Your task to perform on an android device: toggle airplane mode Image 0: 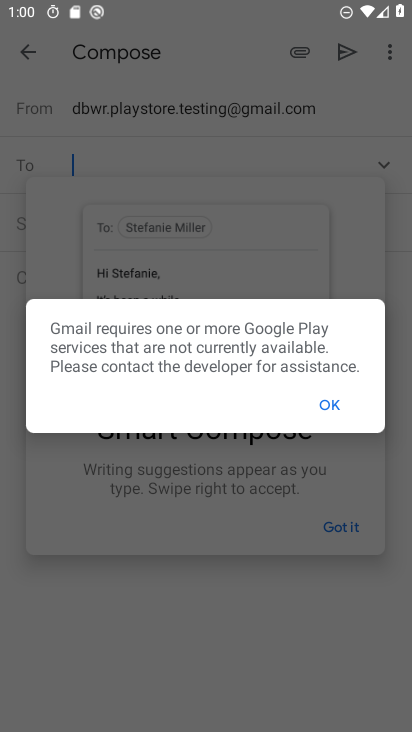
Step 0: press home button
Your task to perform on an android device: toggle airplane mode Image 1: 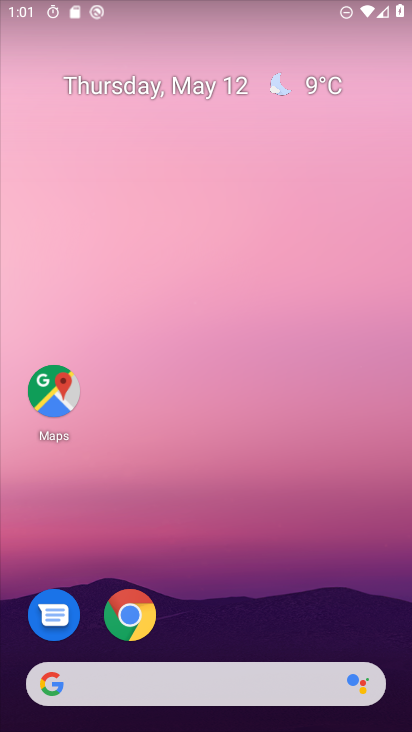
Step 1: drag from (277, 595) to (310, 46)
Your task to perform on an android device: toggle airplane mode Image 2: 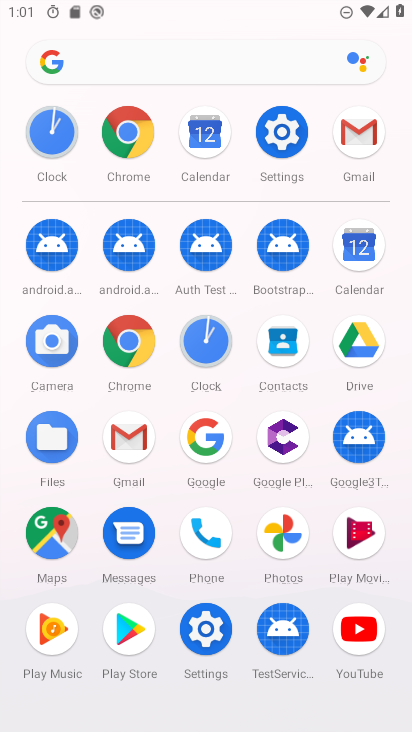
Step 2: click (295, 139)
Your task to perform on an android device: toggle airplane mode Image 3: 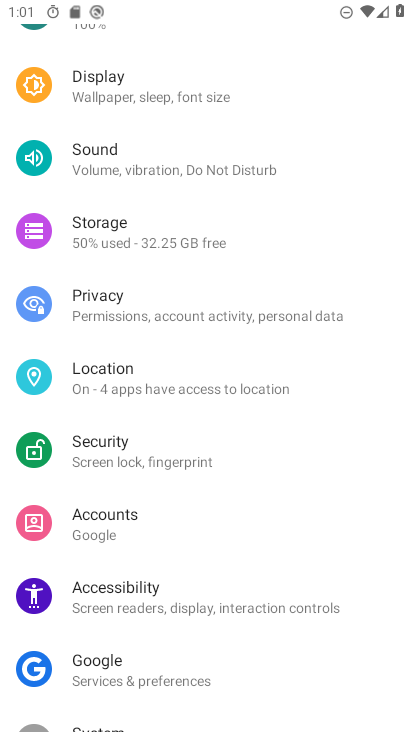
Step 3: drag from (264, 113) to (189, 528)
Your task to perform on an android device: toggle airplane mode Image 4: 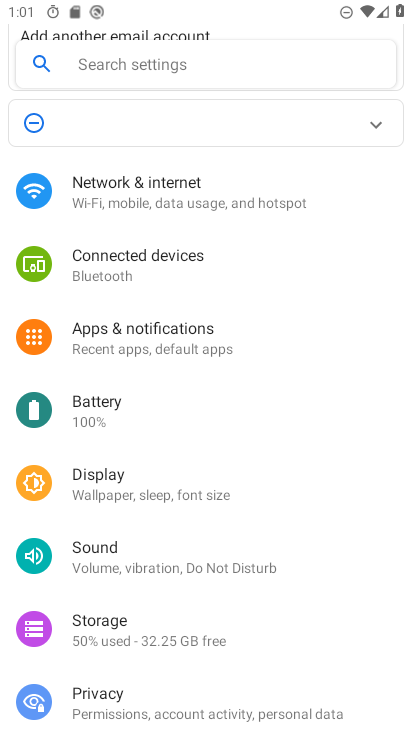
Step 4: click (142, 200)
Your task to perform on an android device: toggle airplane mode Image 5: 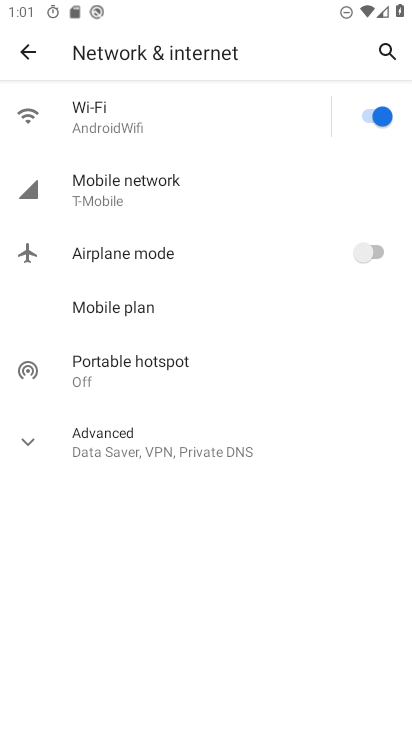
Step 5: click (381, 247)
Your task to perform on an android device: toggle airplane mode Image 6: 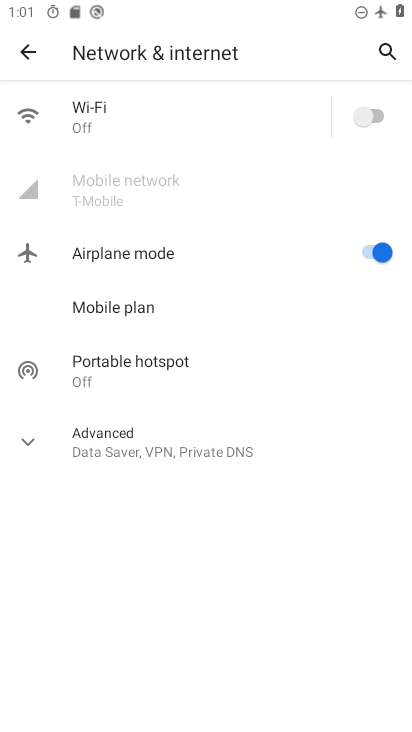
Step 6: task complete